Your task to perform on an android device: Open Chrome and go to the settings page Image 0: 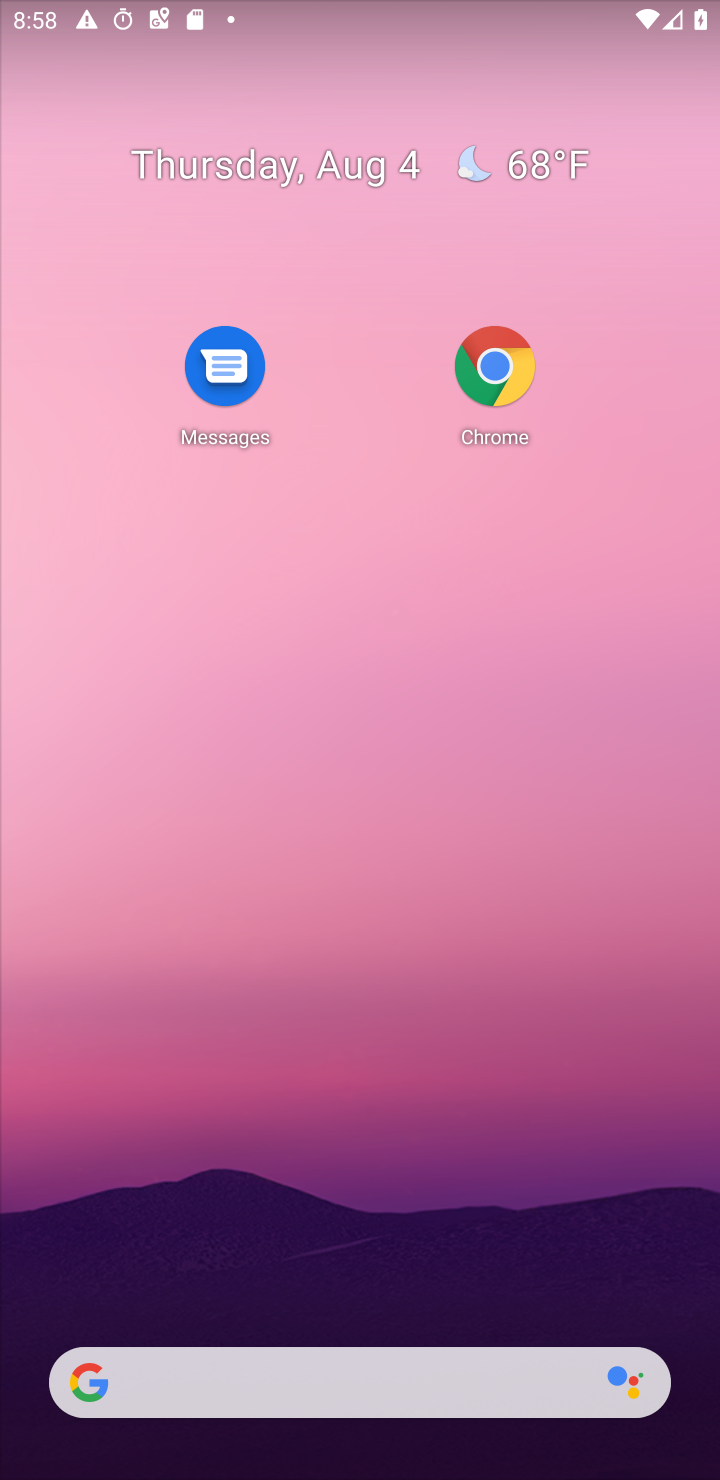
Step 0: press home button
Your task to perform on an android device: Open Chrome and go to the settings page Image 1: 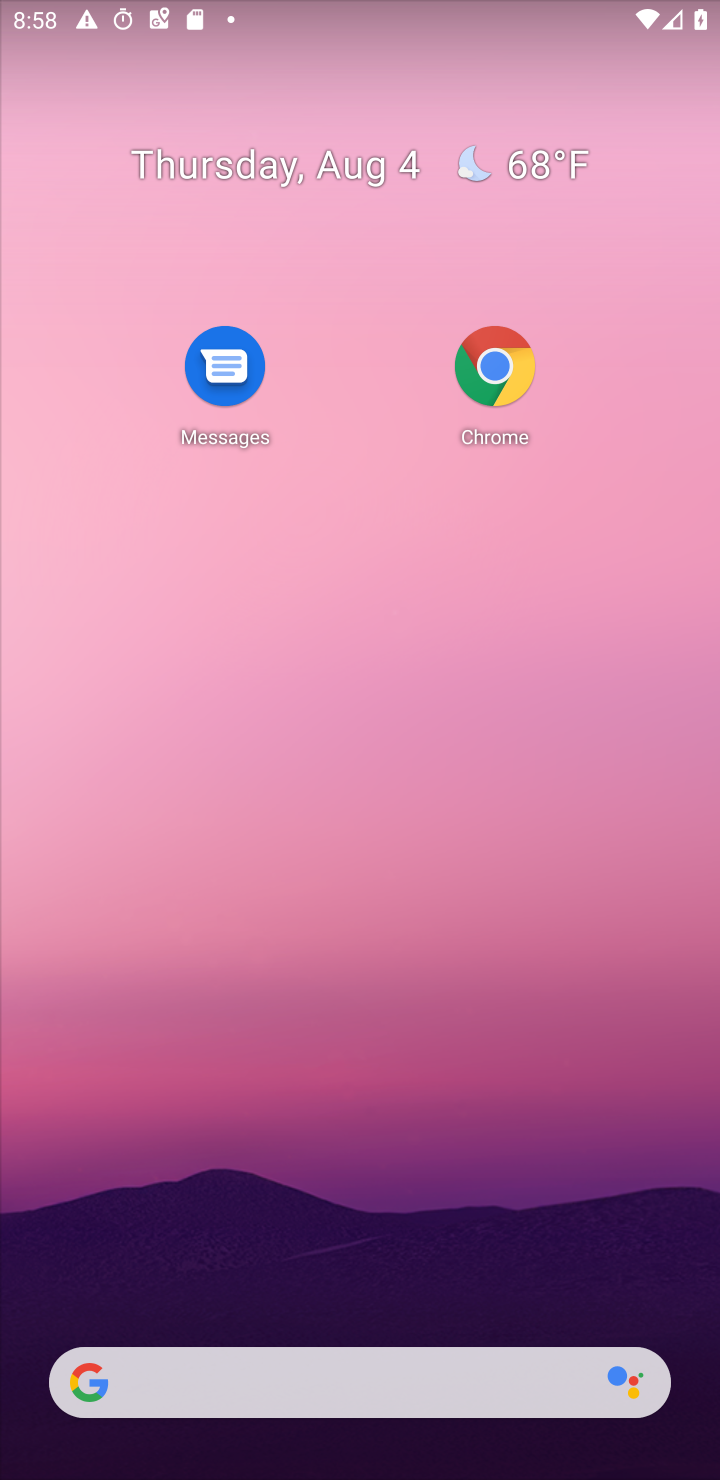
Step 1: drag from (439, 1415) to (399, 364)
Your task to perform on an android device: Open Chrome and go to the settings page Image 2: 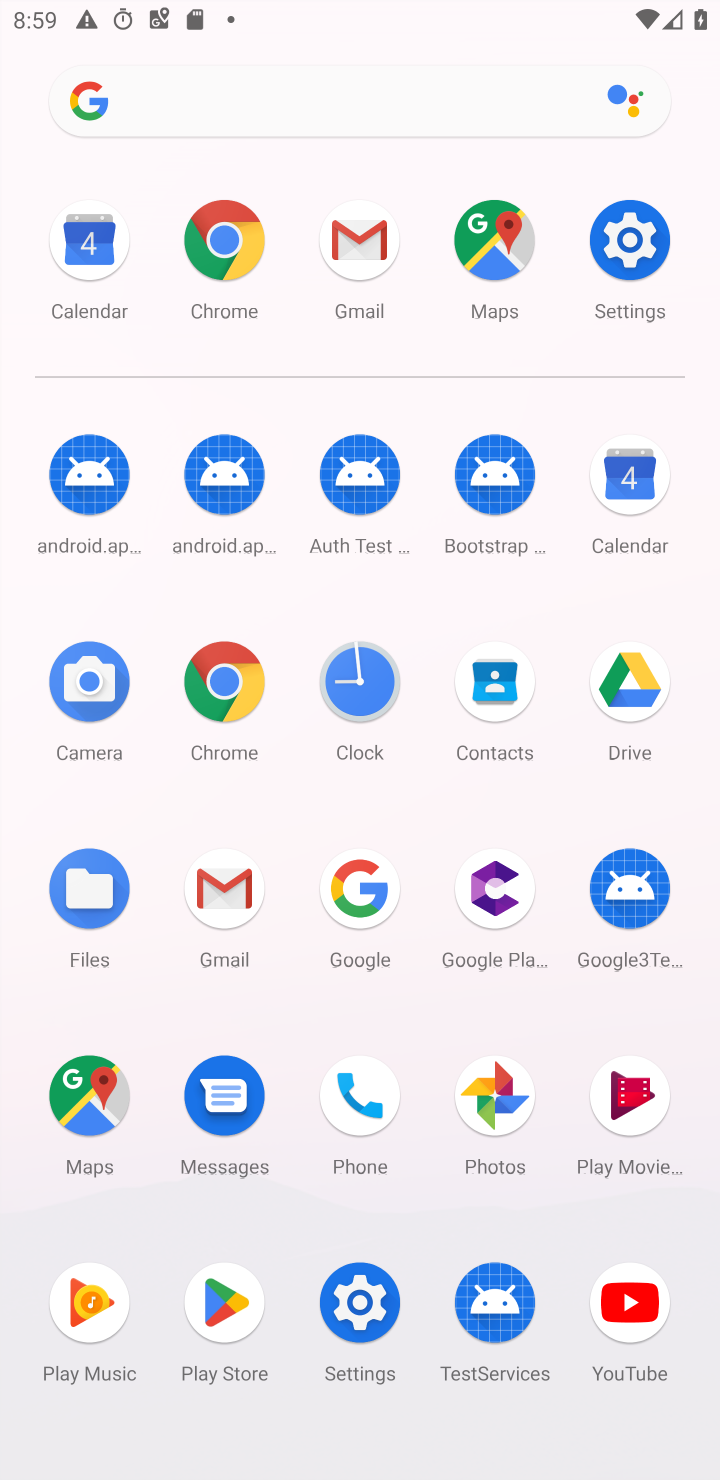
Step 2: click (241, 257)
Your task to perform on an android device: Open Chrome and go to the settings page Image 3: 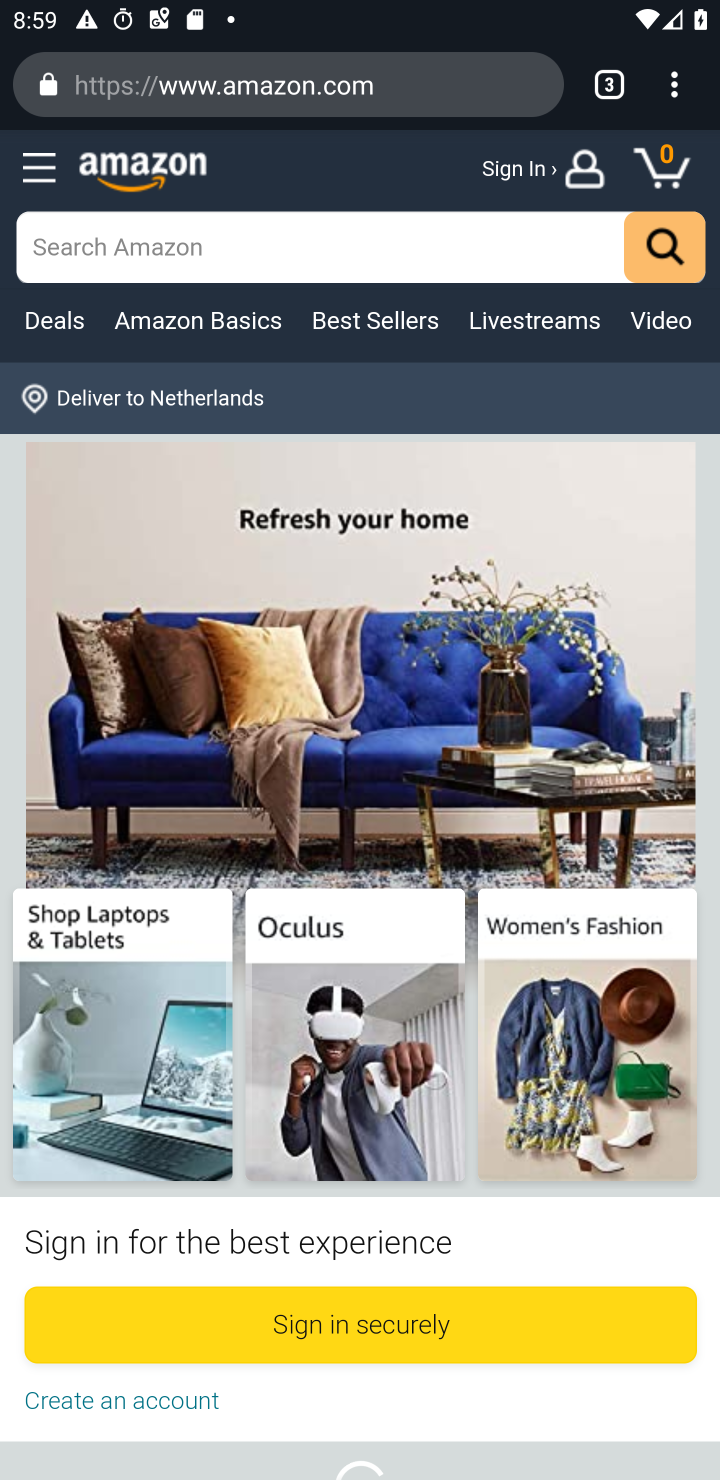
Step 3: click (666, 104)
Your task to perform on an android device: Open Chrome and go to the settings page Image 4: 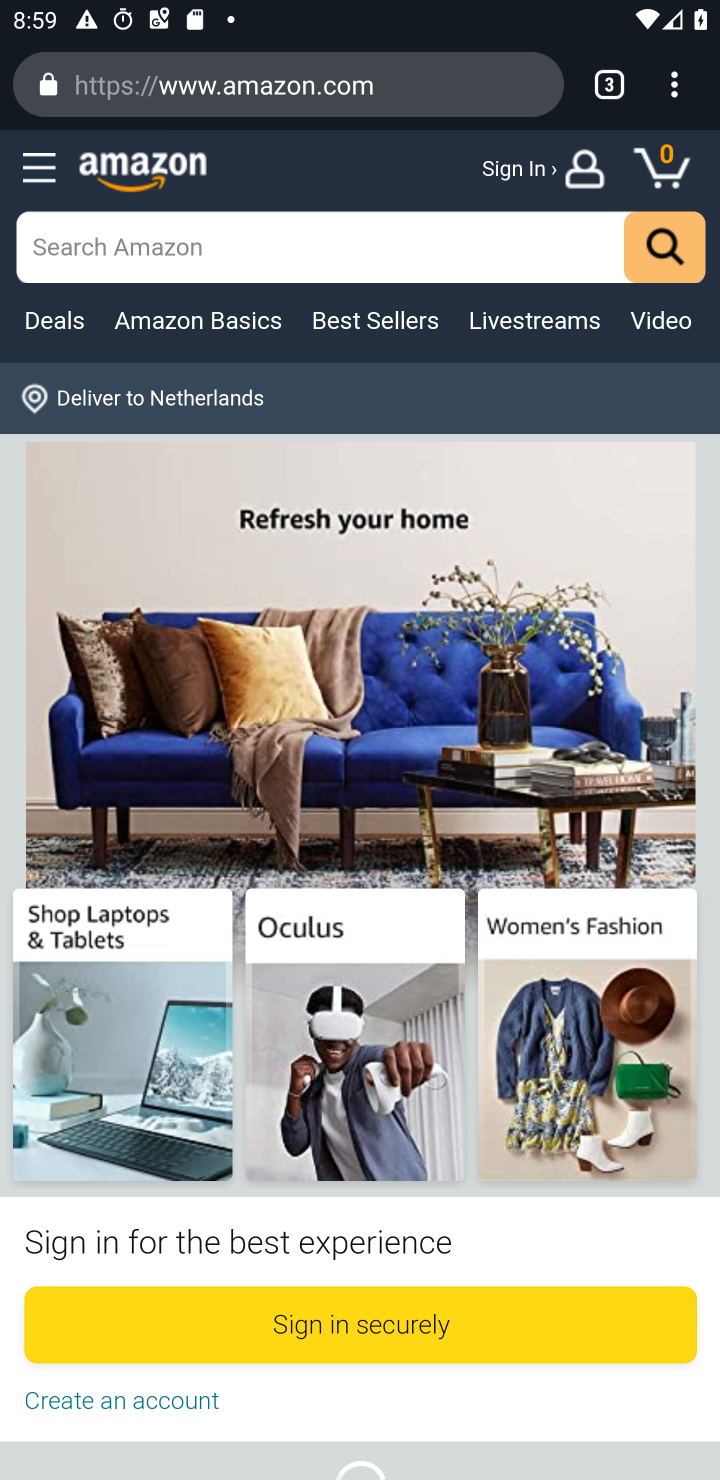
Step 4: click (660, 87)
Your task to perform on an android device: Open Chrome and go to the settings page Image 5: 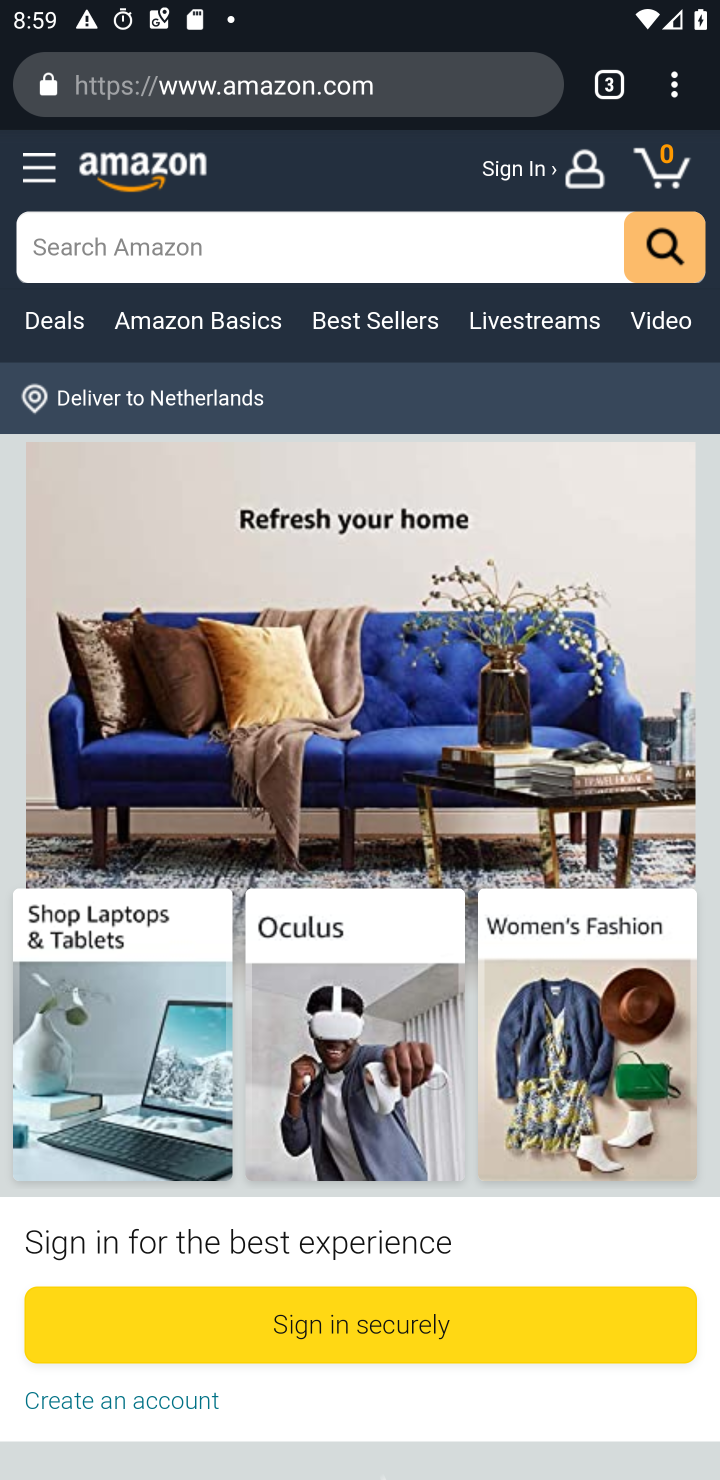
Step 5: click (677, 87)
Your task to perform on an android device: Open Chrome and go to the settings page Image 6: 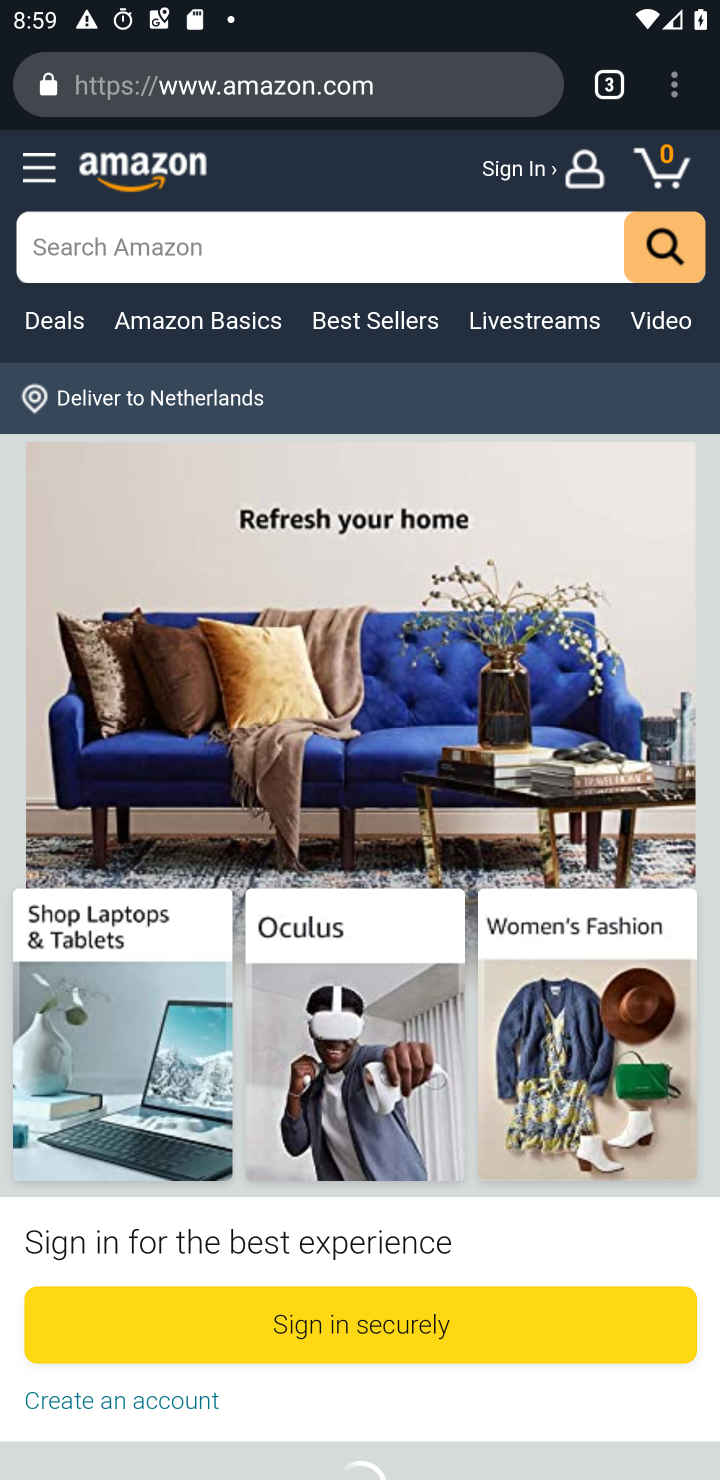
Step 6: click (677, 87)
Your task to perform on an android device: Open Chrome and go to the settings page Image 7: 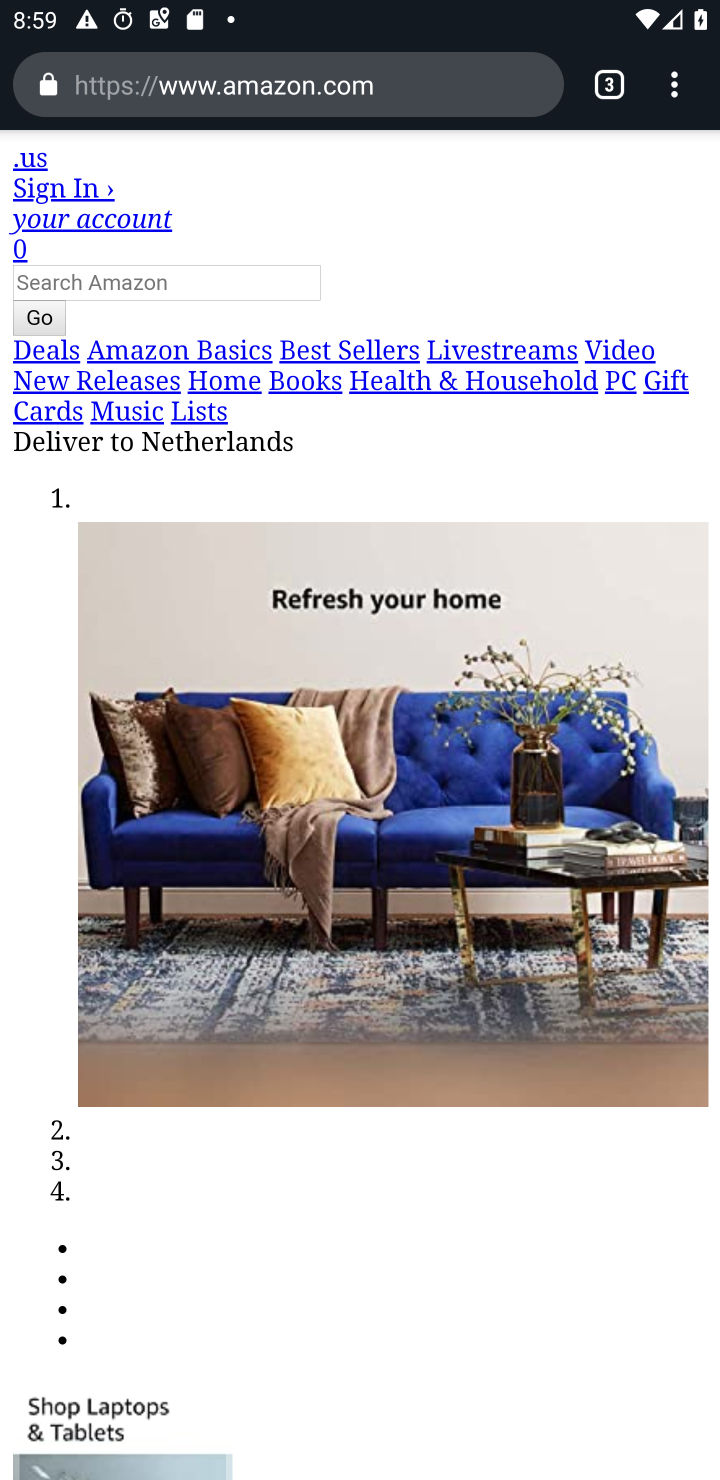
Step 7: click (677, 88)
Your task to perform on an android device: Open Chrome and go to the settings page Image 8: 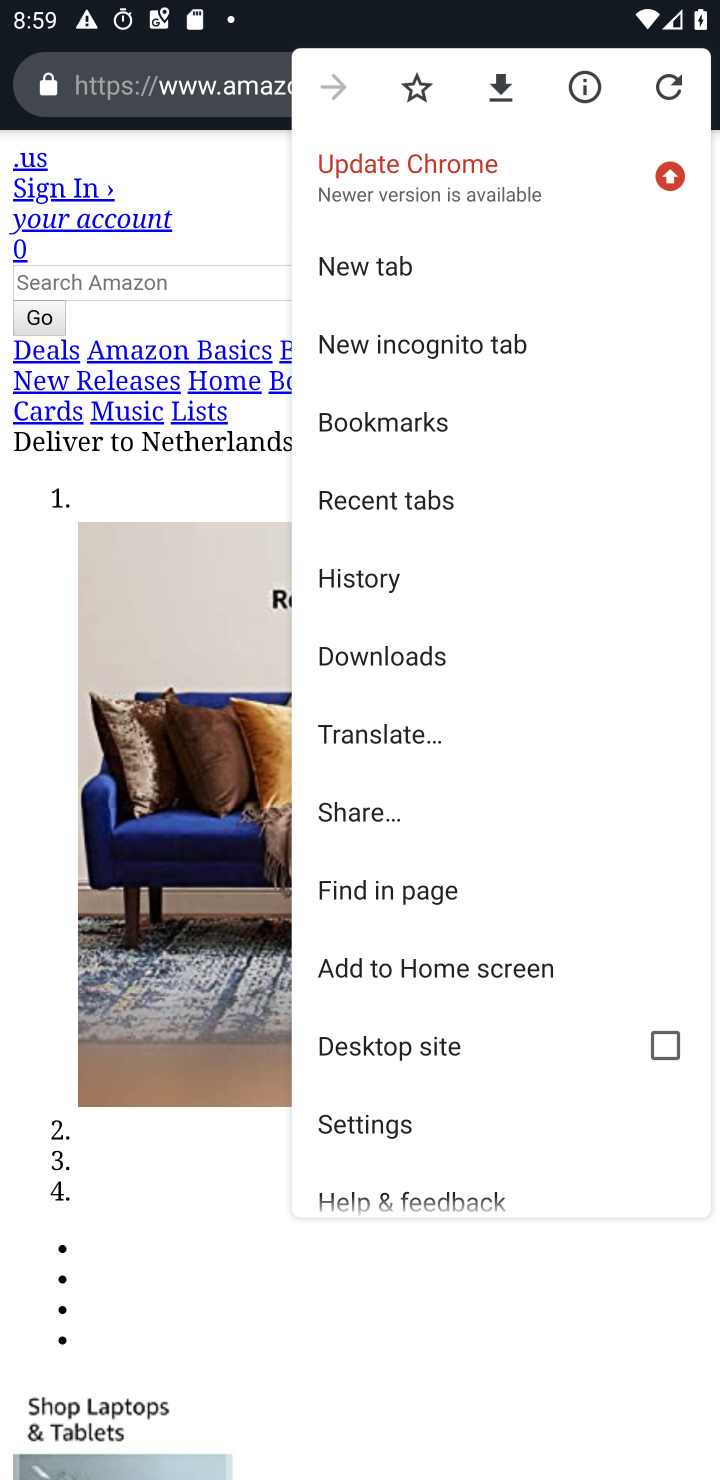
Step 8: click (405, 1119)
Your task to perform on an android device: Open Chrome and go to the settings page Image 9: 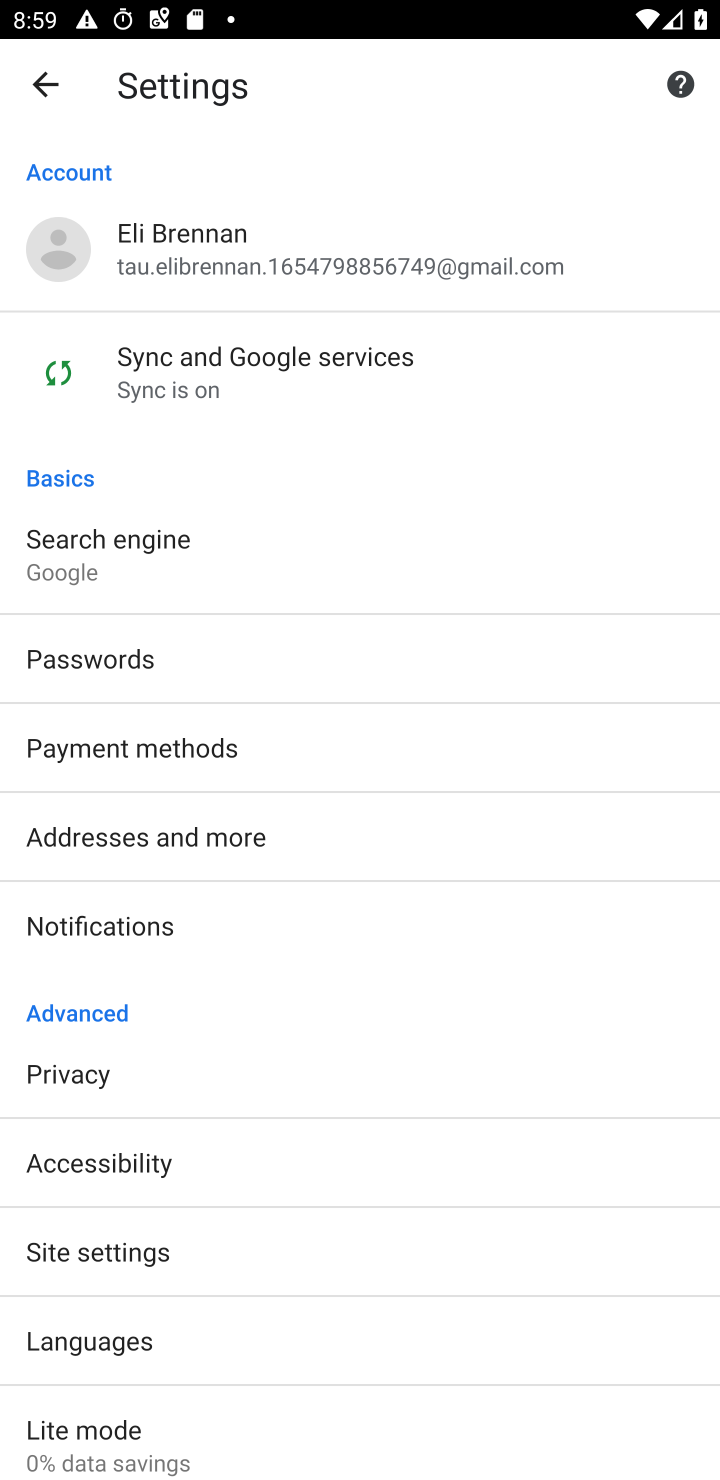
Step 9: task complete